Your task to perform on an android device: refresh tabs in the chrome app Image 0: 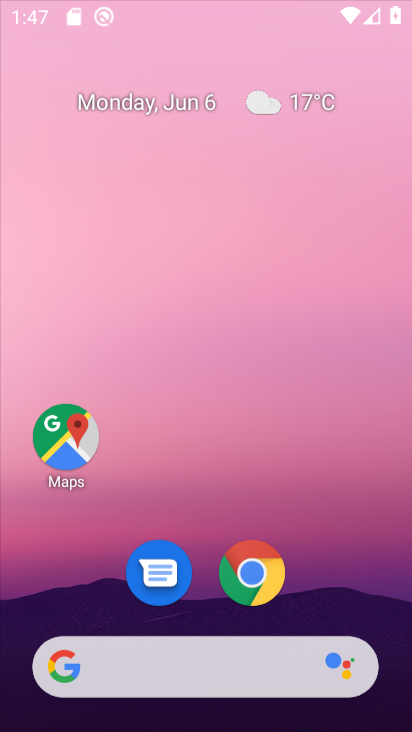
Step 0: press back button
Your task to perform on an android device: refresh tabs in the chrome app Image 1: 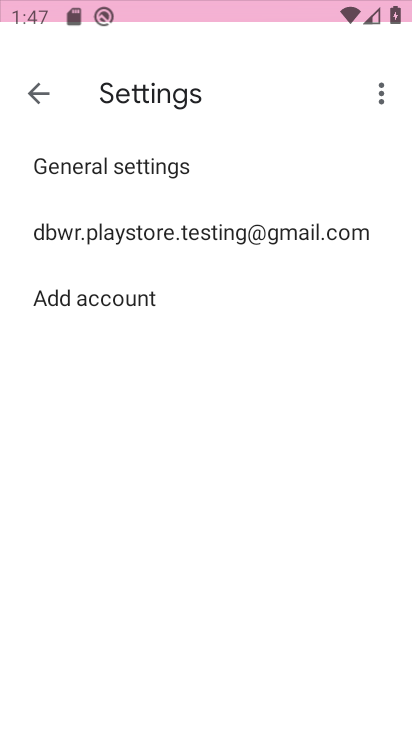
Step 1: press home button
Your task to perform on an android device: refresh tabs in the chrome app Image 2: 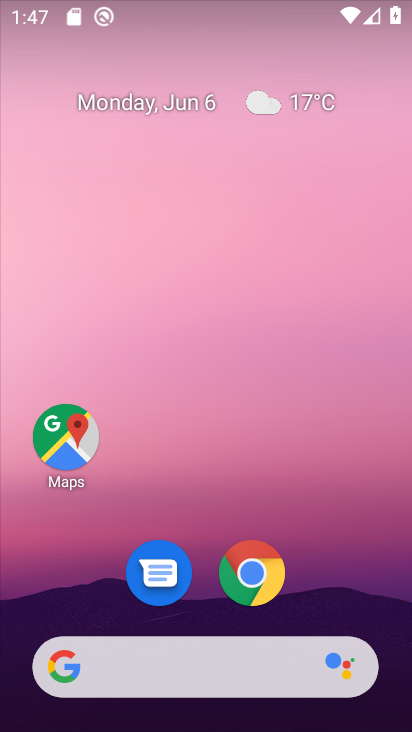
Step 2: drag from (393, 647) to (264, 55)
Your task to perform on an android device: refresh tabs in the chrome app Image 3: 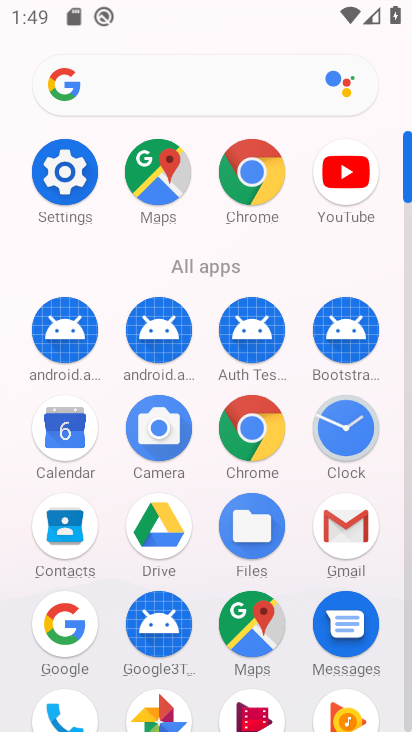
Step 3: click (251, 426)
Your task to perform on an android device: refresh tabs in the chrome app Image 4: 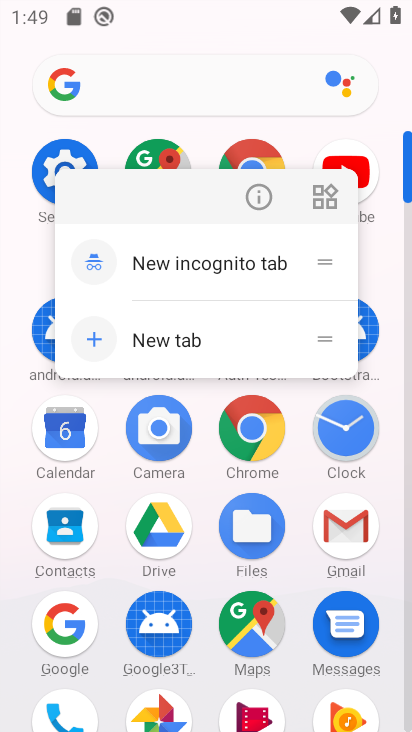
Step 4: click (251, 426)
Your task to perform on an android device: refresh tabs in the chrome app Image 5: 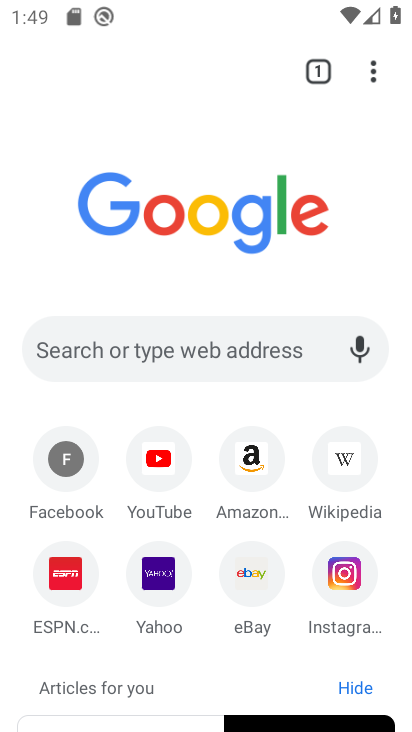
Step 5: click (378, 62)
Your task to perform on an android device: refresh tabs in the chrome app Image 6: 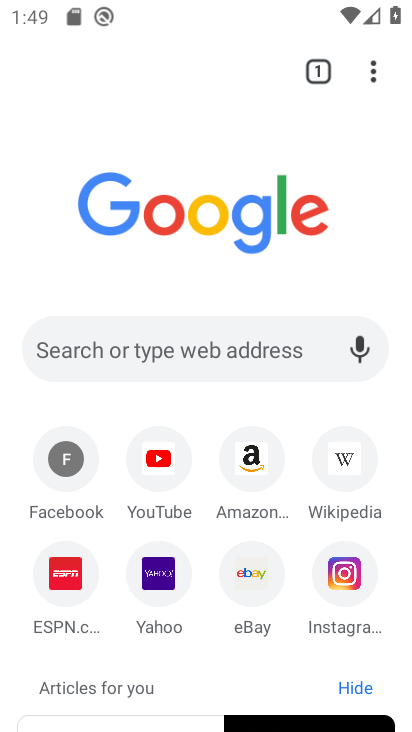
Step 6: click (378, 62)
Your task to perform on an android device: refresh tabs in the chrome app Image 7: 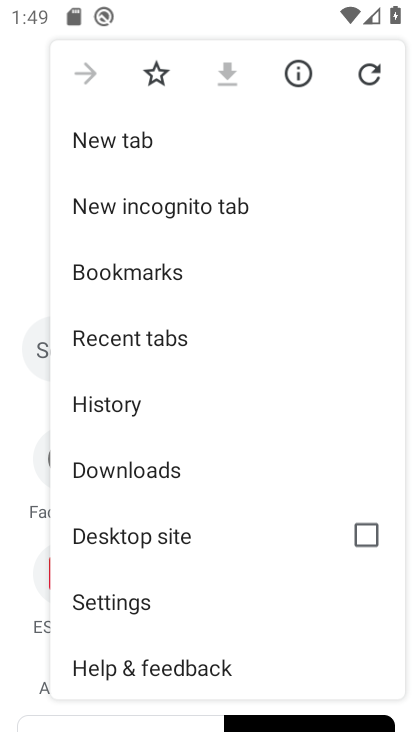
Step 7: click (365, 79)
Your task to perform on an android device: refresh tabs in the chrome app Image 8: 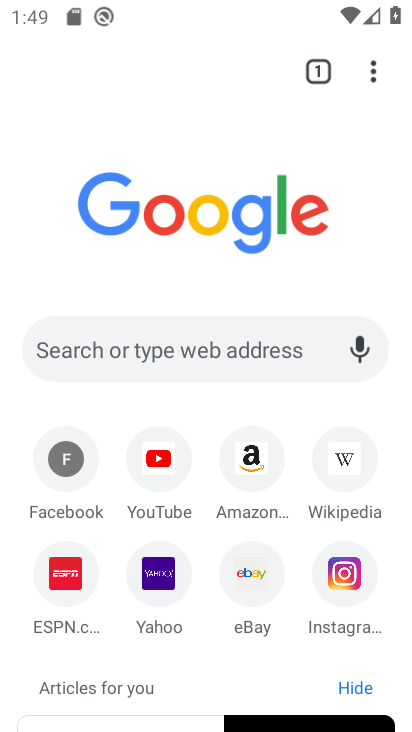
Step 8: task complete